Your task to perform on an android device: Go to Yahoo.com Image 0: 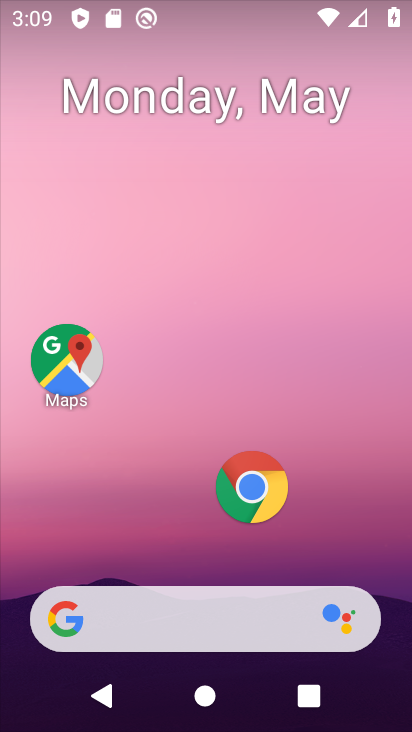
Step 0: click (247, 487)
Your task to perform on an android device: Go to Yahoo.com Image 1: 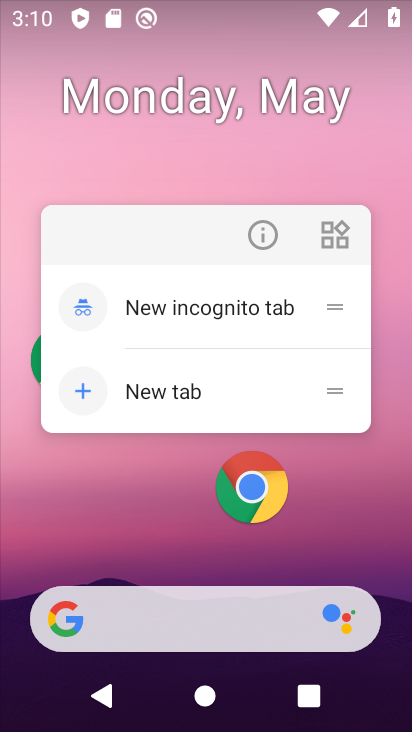
Step 1: click (241, 494)
Your task to perform on an android device: Go to Yahoo.com Image 2: 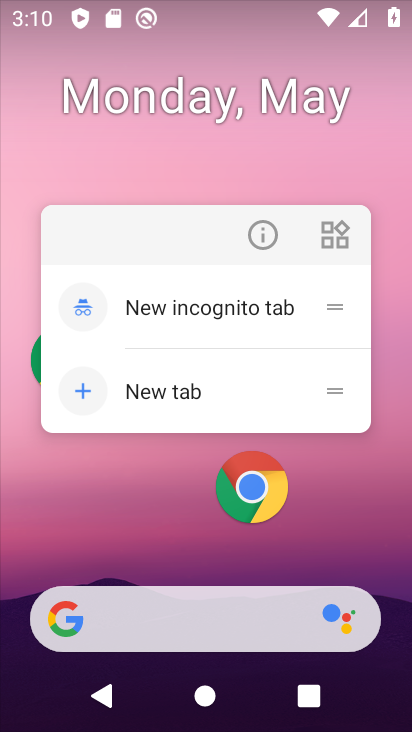
Step 2: click (263, 491)
Your task to perform on an android device: Go to Yahoo.com Image 3: 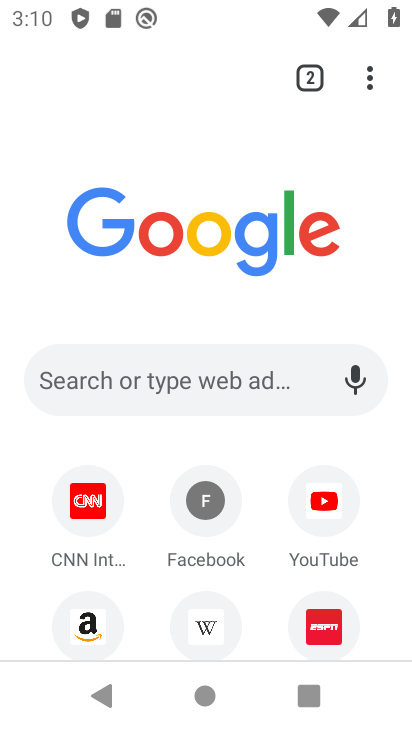
Step 3: click (191, 382)
Your task to perform on an android device: Go to Yahoo.com Image 4: 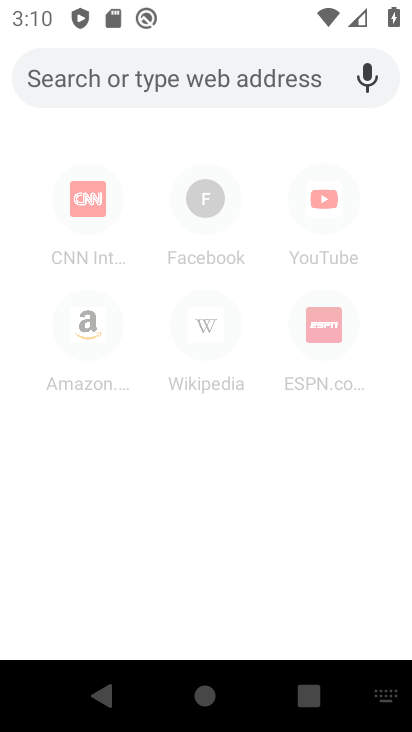
Step 4: type "yahoo.com"
Your task to perform on an android device: Go to Yahoo.com Image 5: 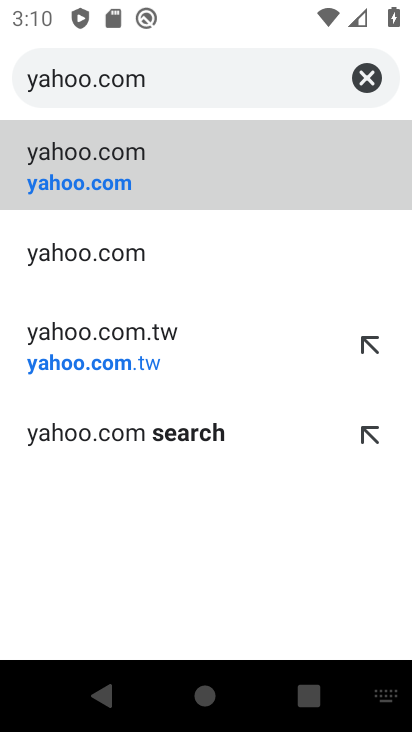
Step 5: click (59, 166)
Your task to perform on an android device: Go to Yahoo.com Image 6: 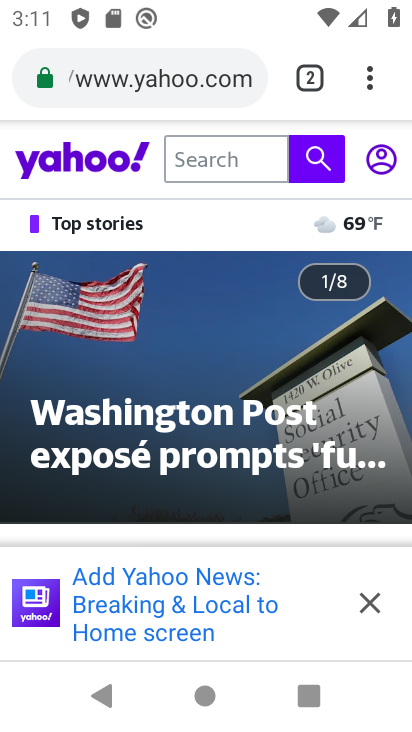
Step 6: task complete